Your task to perform on an android device: delete location history Image 0: 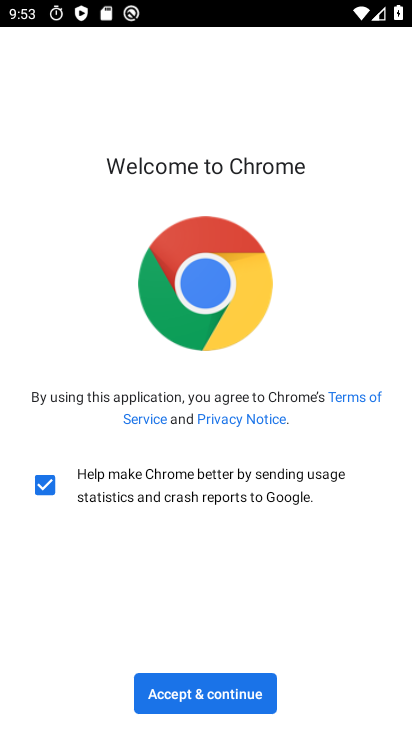
Step 0: press home button
Your task to perform on an android device: delete location history Image 1: 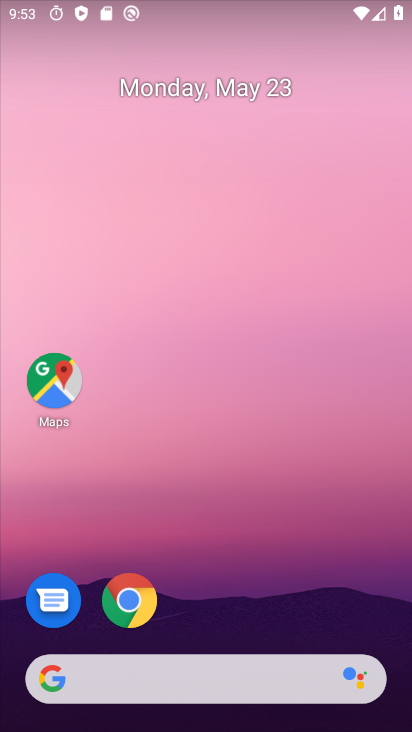
Step 1: click (52, 378)
Your task to perform on an android device: delete location history Image 2: 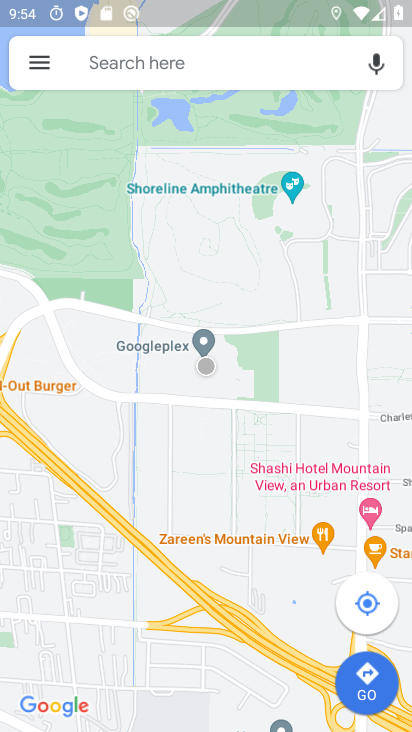
Step 2: click (37, 56)
Your task to perform on an android device: delete location history Image 3: 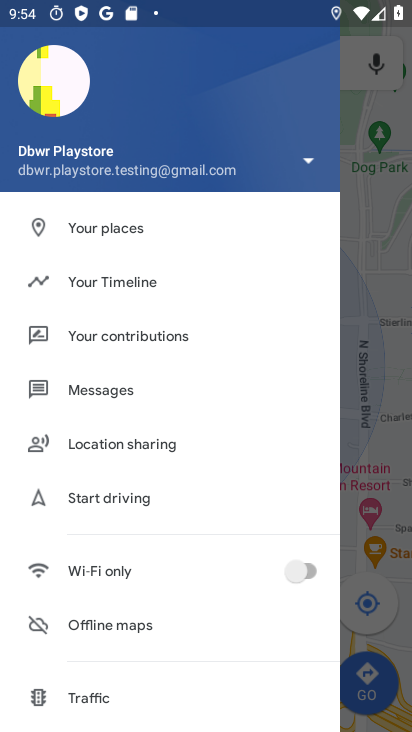
Step 3: click (123, 283)
Your task to perform on an android device: delete location history Image 4: 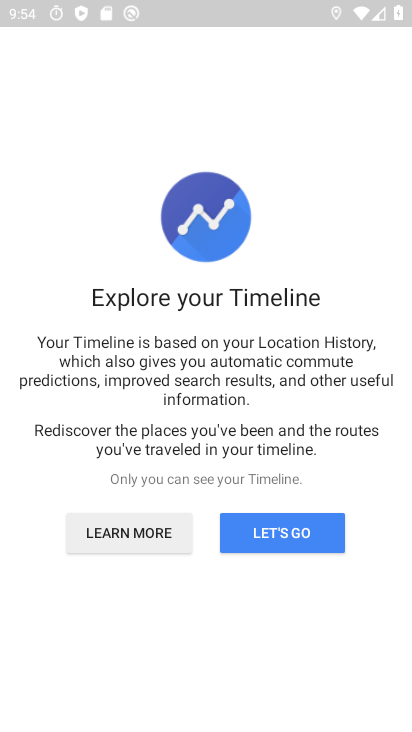
Step 4: click (266, 533)
Your task to perform on an android device: delete location history Image 5: 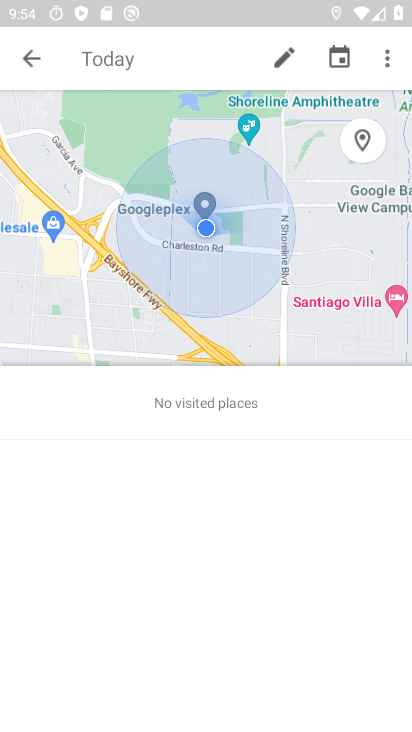
Step 5: click (390, 54)
Your task to perform on an android device: delete location history Image 6: 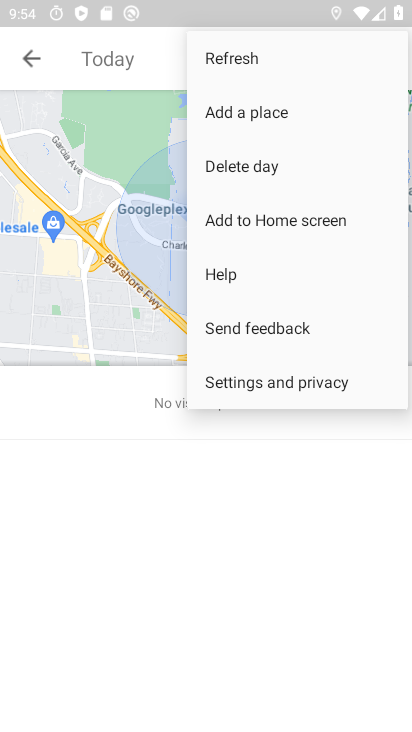
Step 6: click (226, 381)
Your task to perform on an android device: delete location history Image 7: 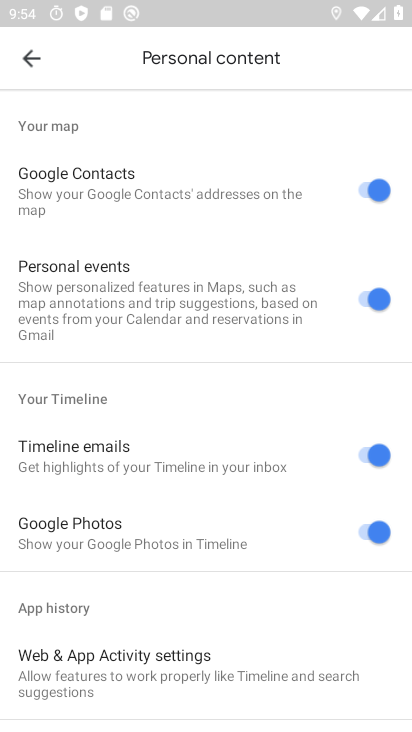
Step 7: drag from (189, 713) to (163, 91)
Your task to perform on an android device: delete location history Image 8: 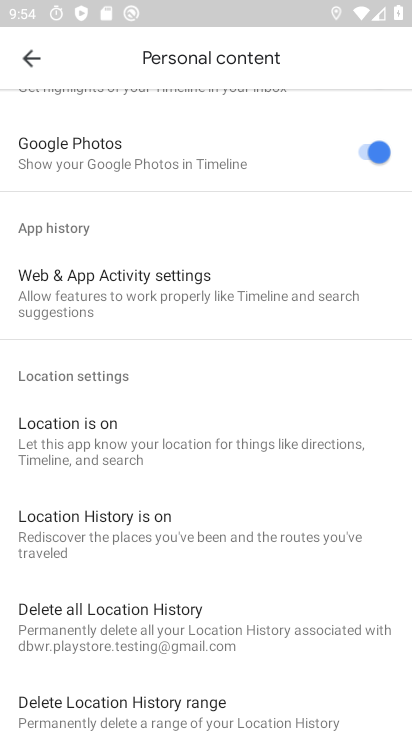
Step 8: click (190, 619)
Your task to perform on an android device: delete location history Image 9: 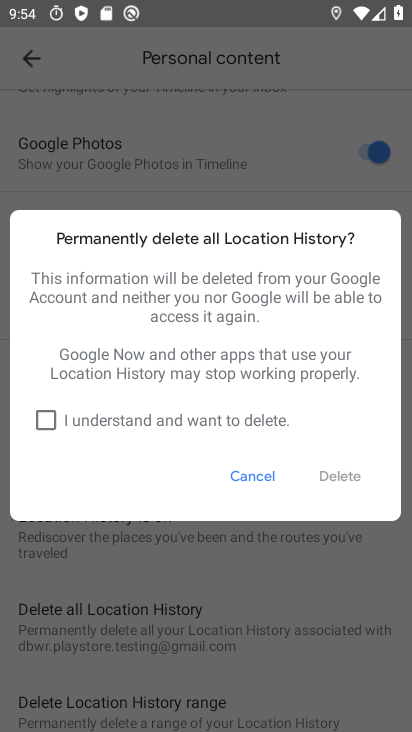
Step 9: click (199, 415)
Your task to perform on an android device: delete location history Image 10: 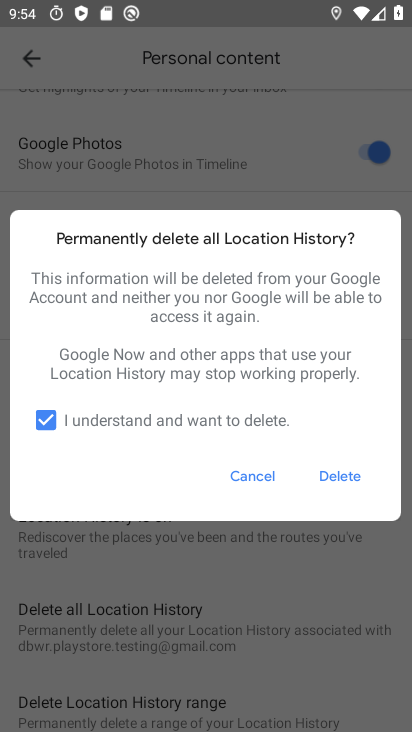
Step 10: click (342, 486)
Your task to perform on an android device: delete location history Image 11: 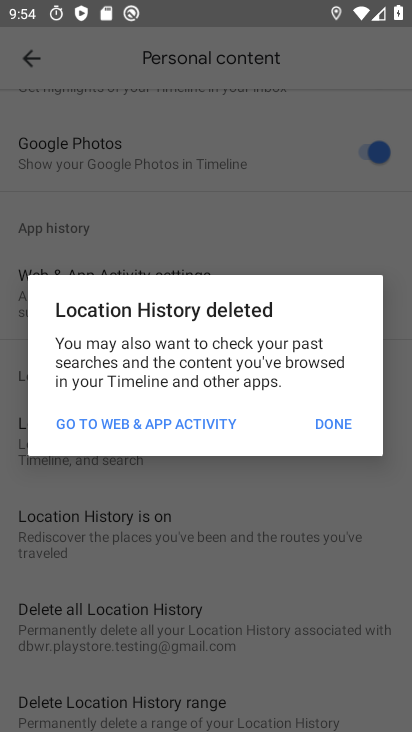
Step 11: click (344, 430)
Your task to perform on an android device: delete location history Image 12: 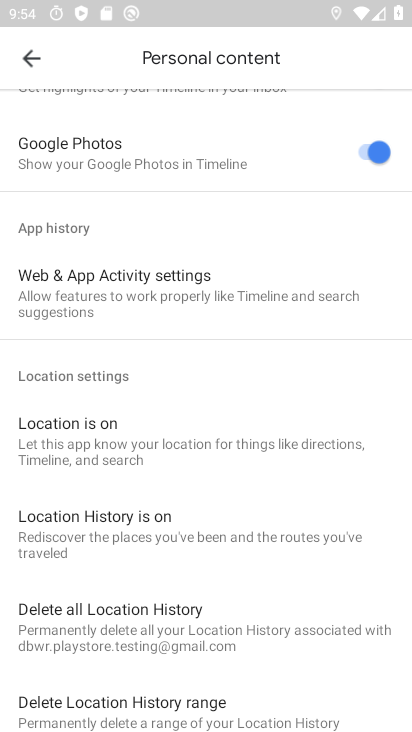
Step 12: task complete